Your task to perform on an android device: turn off location history Image 0: 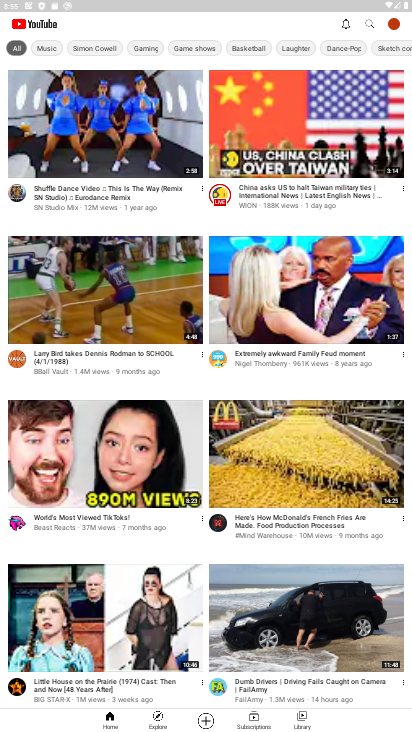
Step 0: drag from (207, 641) to (282, 120)
Your task to perform on an android device: turn off location history Image 1: 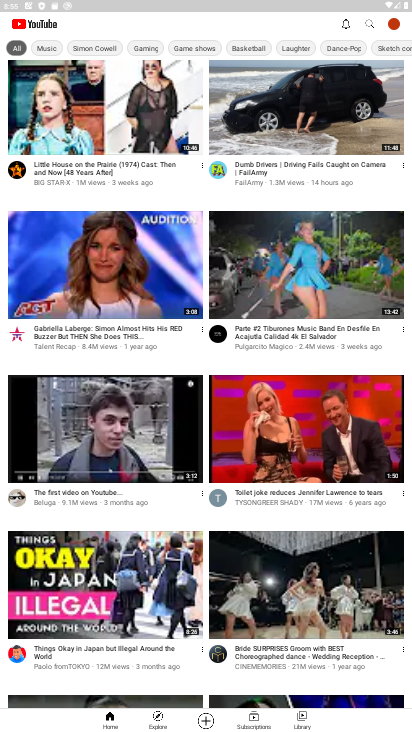
Step 1: drag from (206, 89) to (221, 728)
Your task to perform on an android device: turn off location history Image 2: 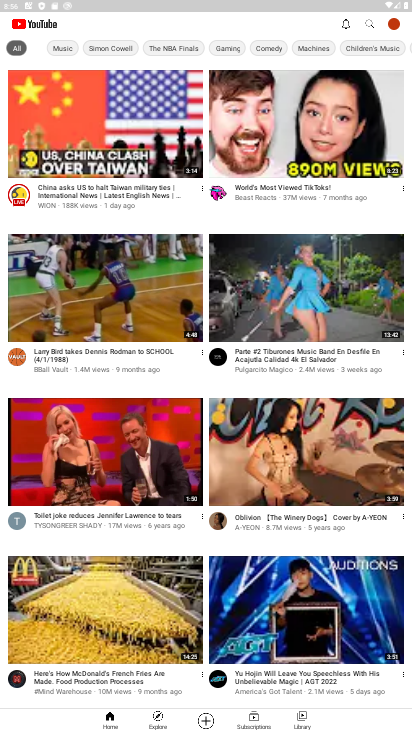
Step 2: press home button
Your task to perform on an android device: turn off location history Image 3: 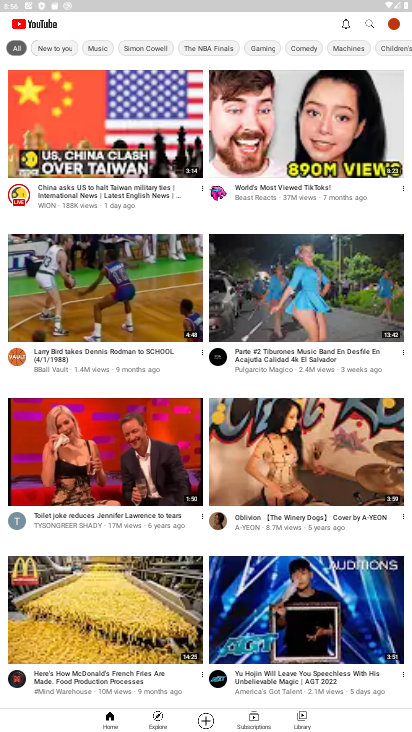
Step 3: press home button
Your task to perform on an android device: turn off location history Image 4: 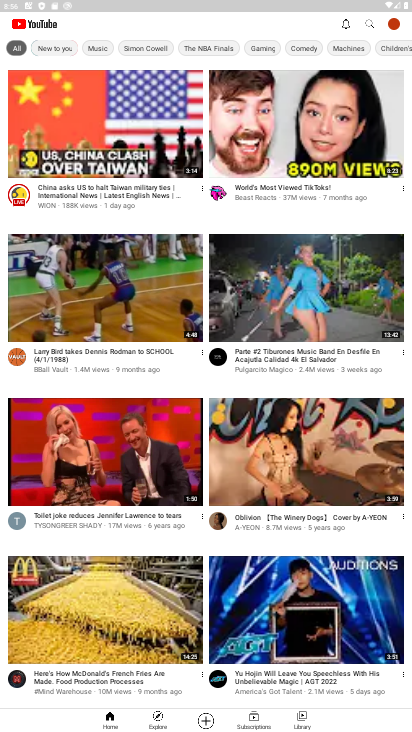
Step 4: drag from (271, 248) to (306, 15)
Your task to perform on an android device: turn off location history Image 5: 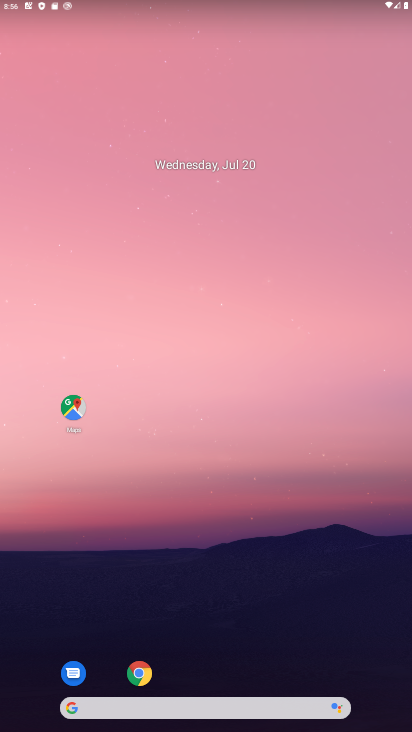
Step 5: drag from (193, 683) to (231, 88)
Your task to perform on an android device: turn off location history Image 6: 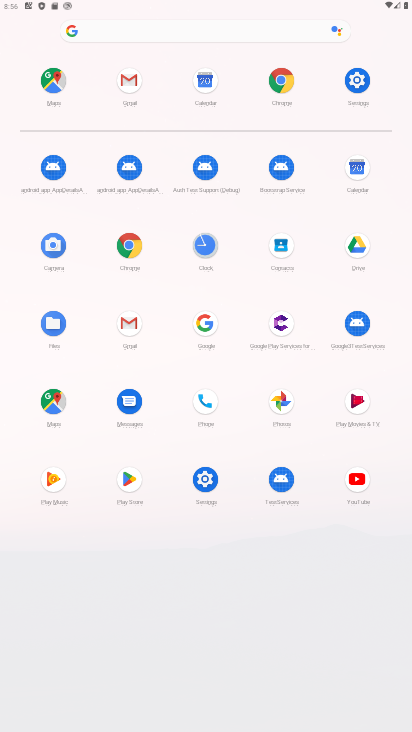
Step 6: click (353, 85)
Your task to perform on an android device: turn off location history Image 7: 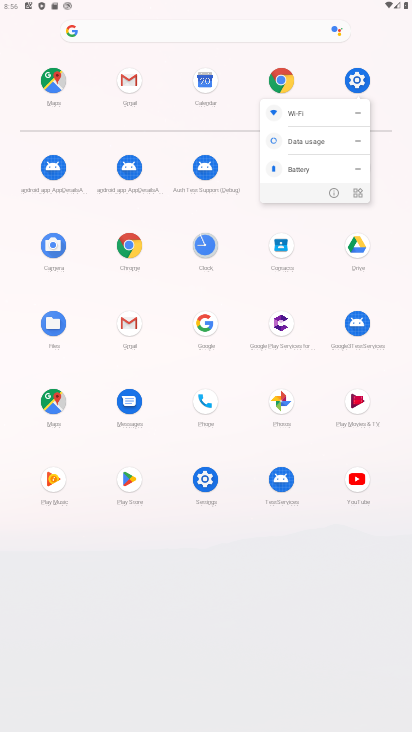
Step 7: click (329, 186)
Your task to perform on an android device: turn off location history Image 8: 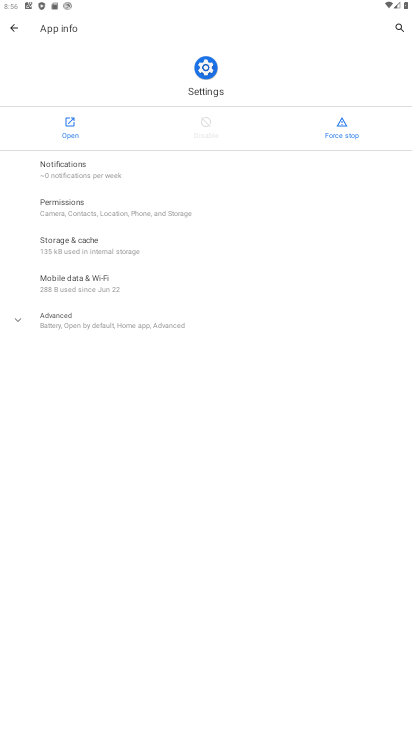
Step 8: click (56, 126)
Your task to perform on an android device: turn off location history Image 9: 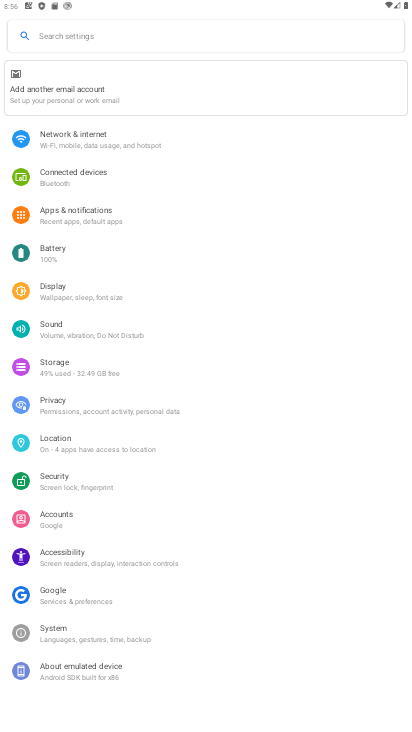
Step 9: click (63, 440)
Your task to perform on an android device: turn off location history Image 10: 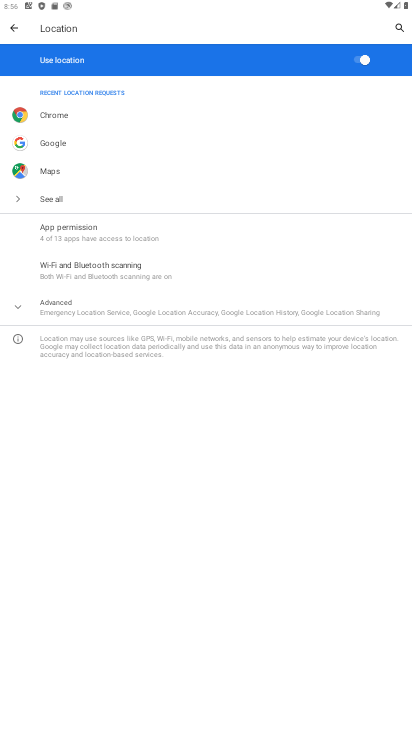
Step 10: click (220, 305)
Your task to perform on an android device: turn off location history Image 11: 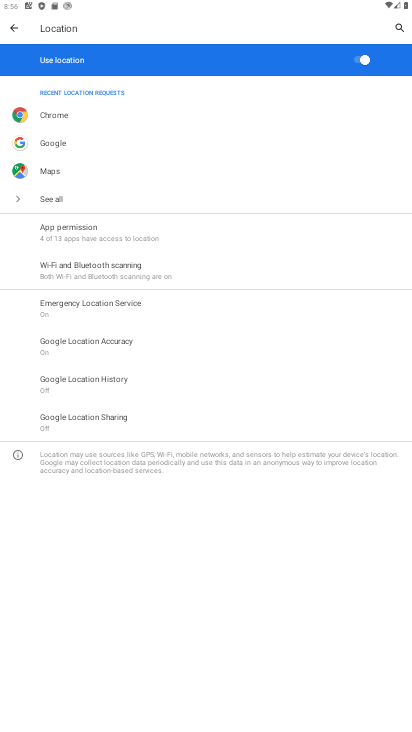
Step 11: click (108, 391)
Your task to perform on an android device: turn off location history Image 12: 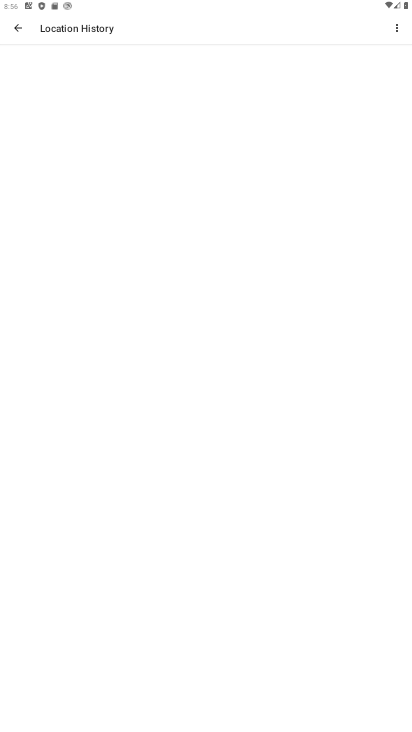
Step 12: click (373, 108)
Your task to perform on an android device: turn off location history Image 13: 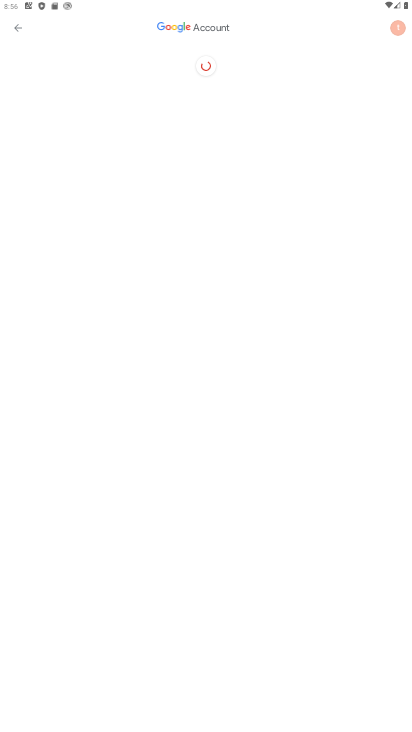
Step 13: drag from (298, 539) to (285, 269)
Your task to perform on an android device: turn off location history Image 14: 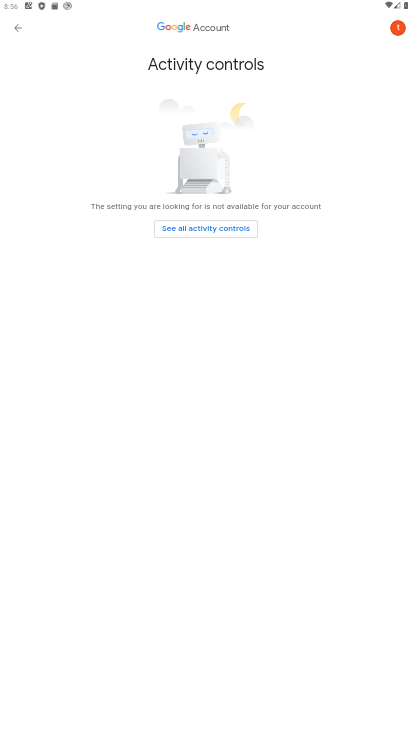
Step 14: drag from (263, 449) to (278, 190)
Your task to perform on an android device: turn off location history Image 15: 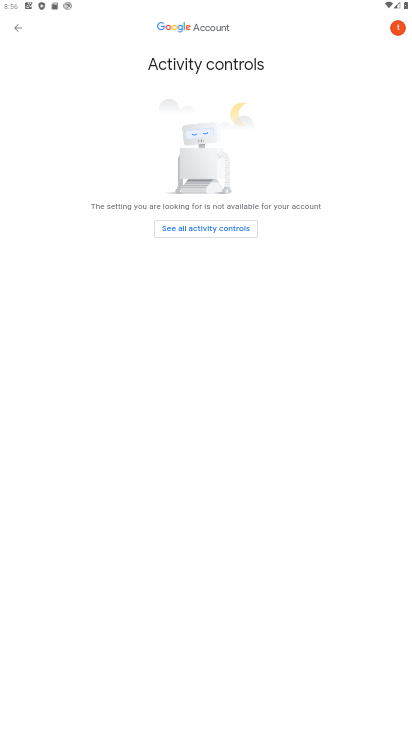
Step 15: click (185, 226)
Your task to perform on an android device: turn off location history Image 16: 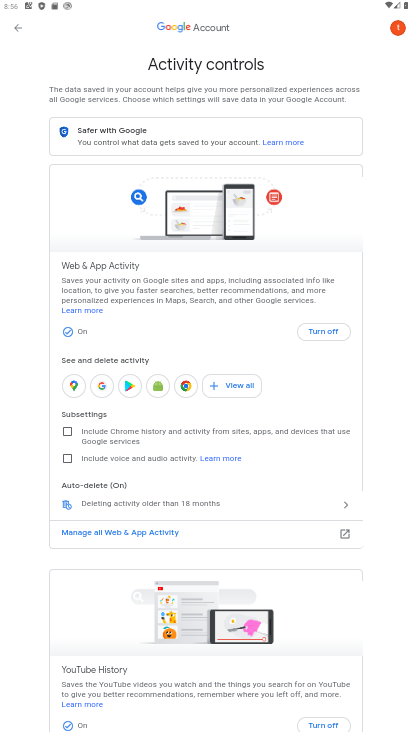
Step 16: task complete